Your task to perform on an android device: Do I have any events today? Image 0: 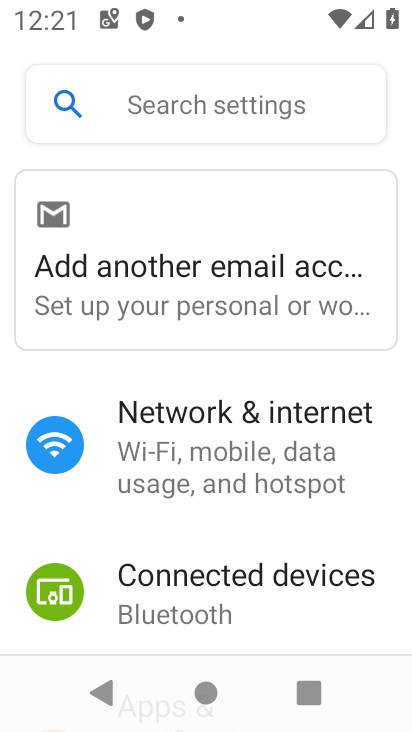
Step 0: press home button
Your task to perform on an android device: Do I have any events today? Image 1: 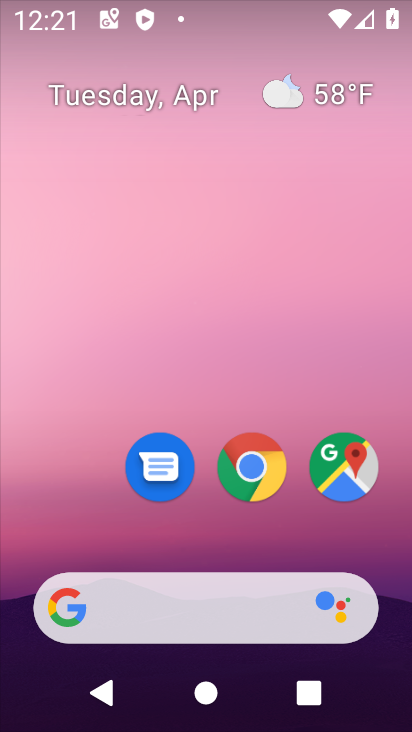
Step 1: click (129, 96)
Your task to perform on an android device: Do I have any events today? Image 2: 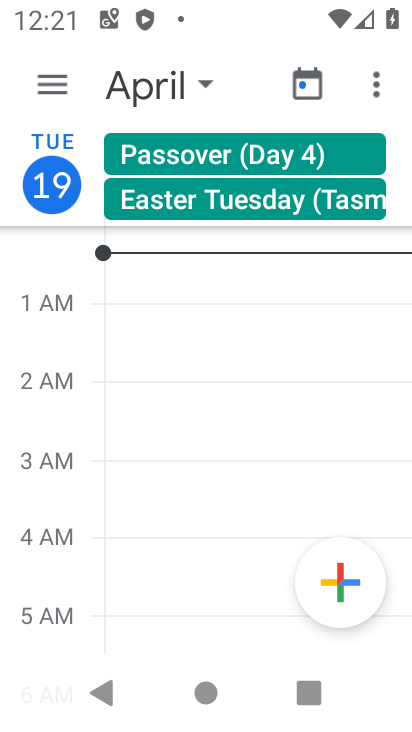
Step 2: click (129, 96)
Your task to perform on an android device: Do I have any events today? Image 3: 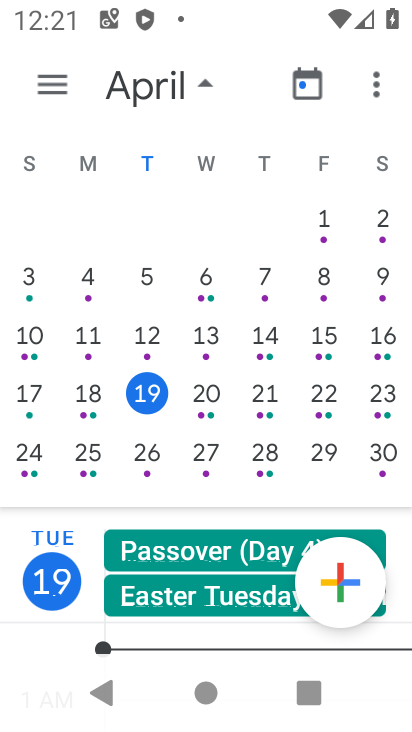
Step 3: click (151, 405)
Your task to perform on an android device: Do I have any events today? Image 4: 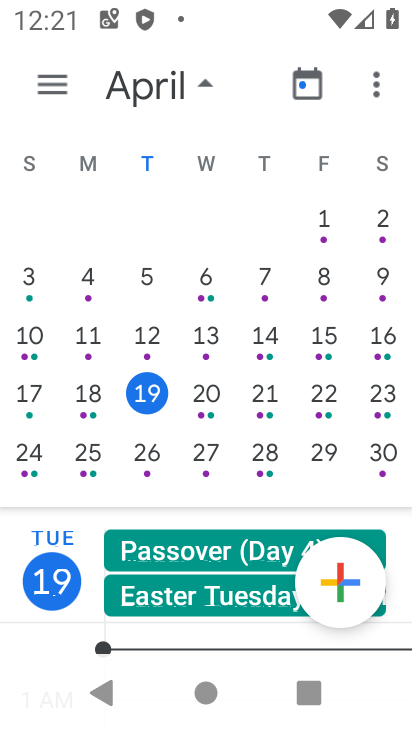
Step 4: drag from (123, 585) to (172, 149)
Your task to perform on an android device: Do I have any events today? Image 5: 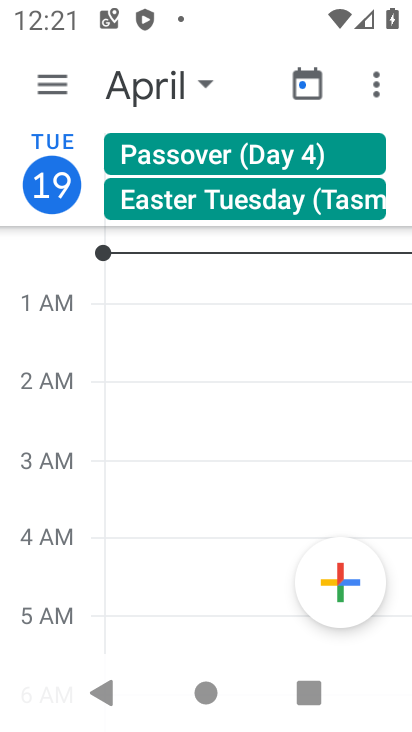
Step 5: click (134, 164)
Your task to perform on an android device: Do I have any events today? Image 6: 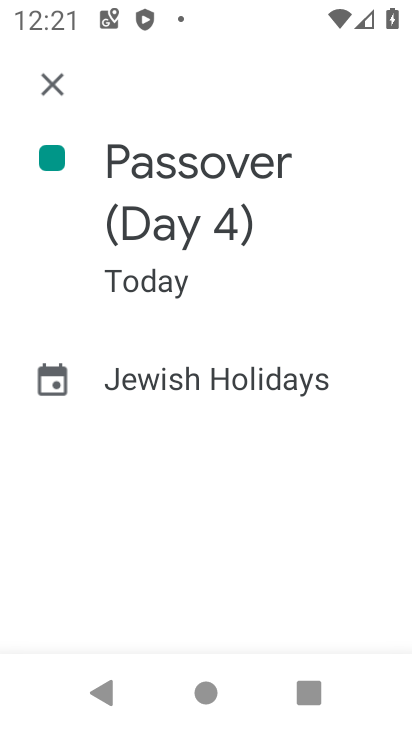
Step 6: task complete